Your task to perform on an android device: check the backup settings in the google photos Image 0: 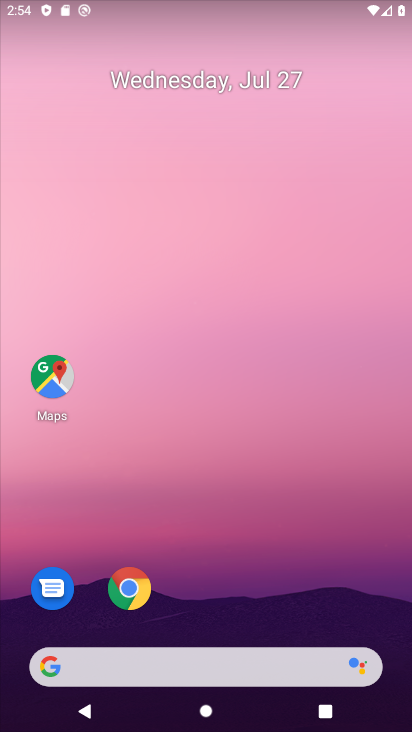
Step 0: drag from (243, 609) to (139, 22)
Your task to perform on an android device: check the backup settings in the google photos Image 1: 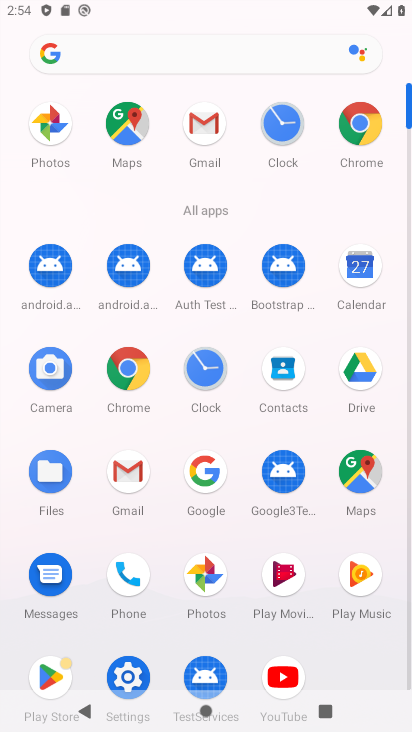
Step 1: click (53, 134)
Your task to perform on an android device: check the backup settings in the google photos Image 2: 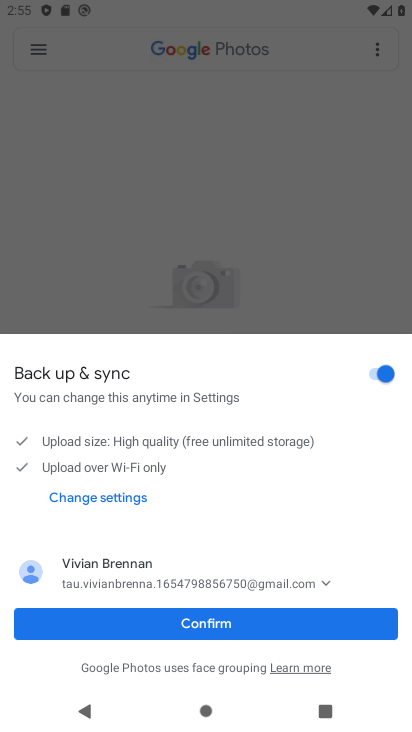
Step 2: click (232, 620)
Your task to perform on an android device: check the backup settings in the google photos Image 3: 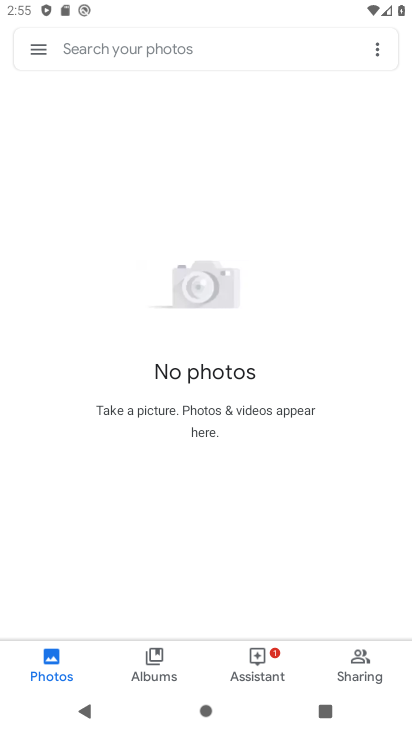
Step 3: click (40, 49)
Your task to perform on an android device: check the backup settings in the google photos Image 4: 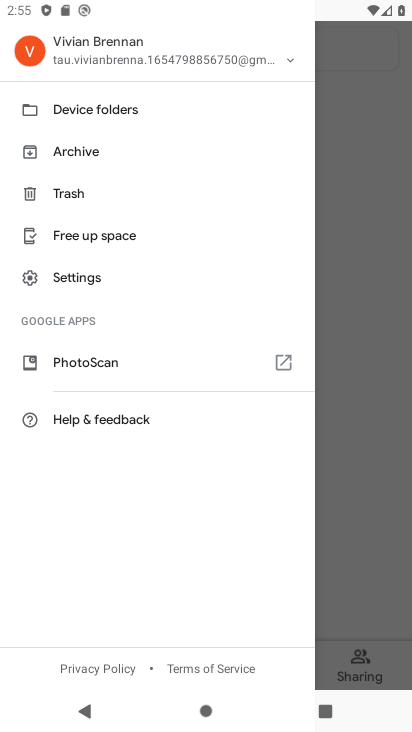
Step 4: click (94, 279)
Your task to perform on an android device: check the backup settings in the google photos Image 5: 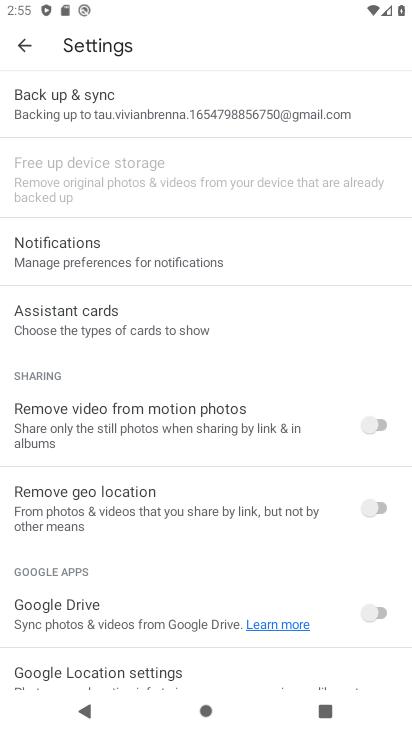
Step 5: click (142, 101)
Your task to perform on an android device: check the backup settings in the google photos Image 6: 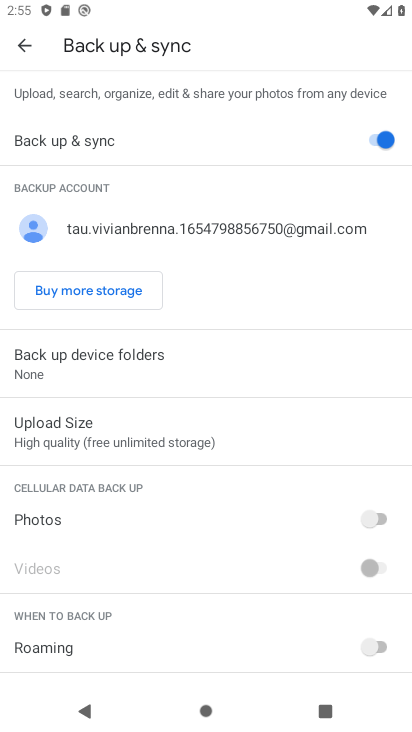
Step 6: task complete